Your task to perform on an android device: turn on javascript in the chrome app Image 0: 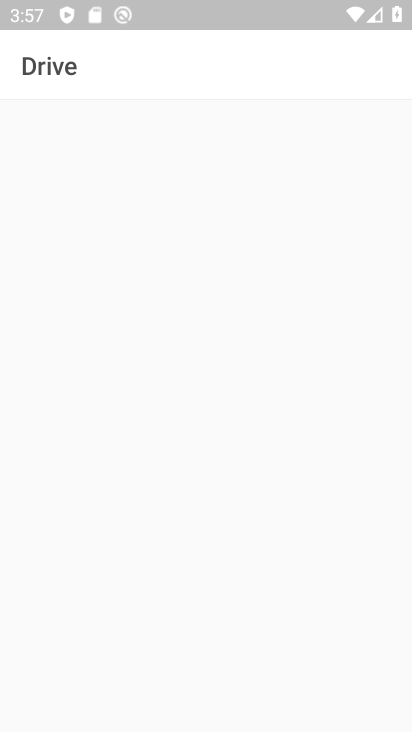
Step 0: press home button
Your task to perform on an android device: turn on javascript in the chrome app Image 1: 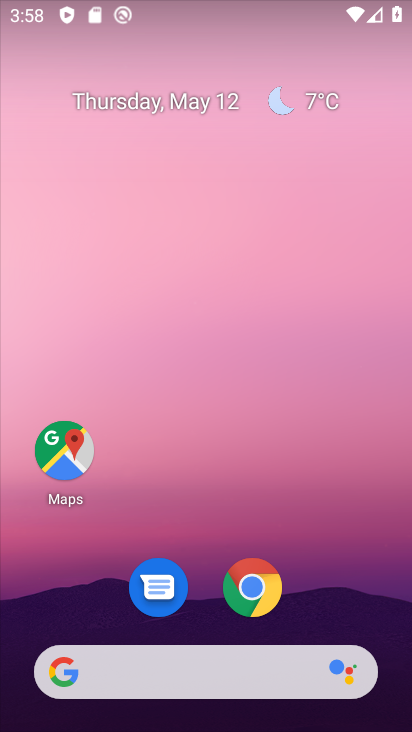
Step 1: click (271, 612)
Your task to perform on an android device: turn on javascript in the chrome app Image 2: 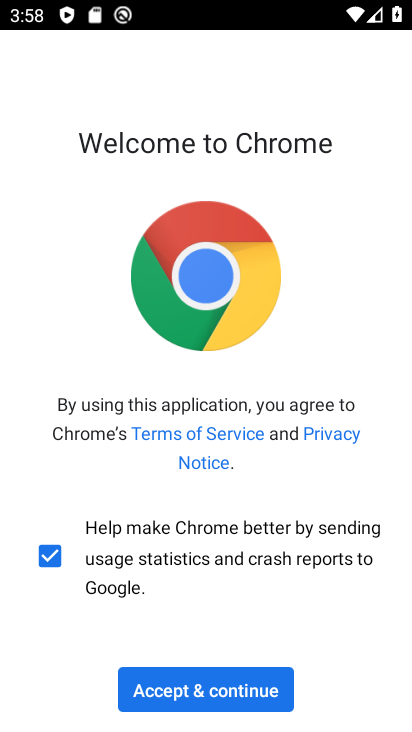
Step 2: click (173, 671)
Your task to perform on an android device: turn on javascript in the chrome app Image 3: 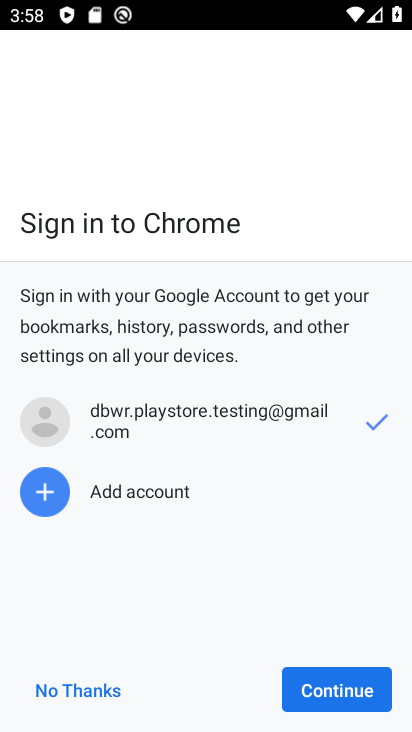
Step 3: click (322, 696)
Your task to perform on an android device: turn on javascript in the chrome app Image 4: 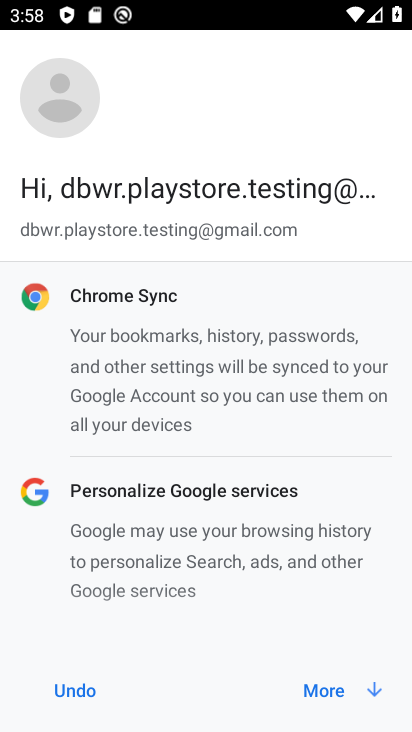
Step 4: click (345, 695)
Your task to perform on an android device: turn on javascript in the chrome app Image 5: 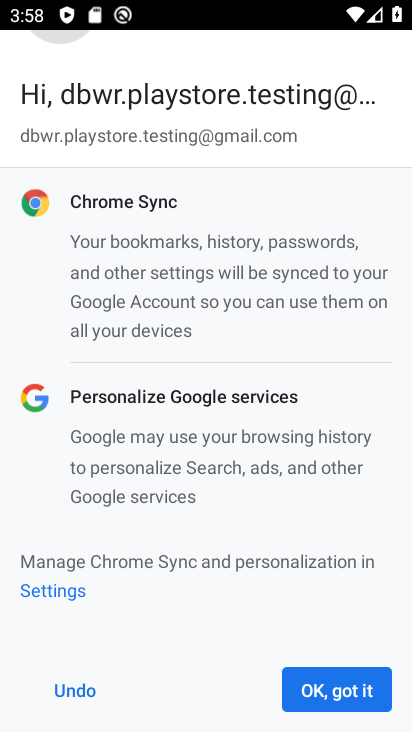
Step 5: click (345, 690)
Your task to perform on an android device: turn on javascript in the chrome app Image 6: 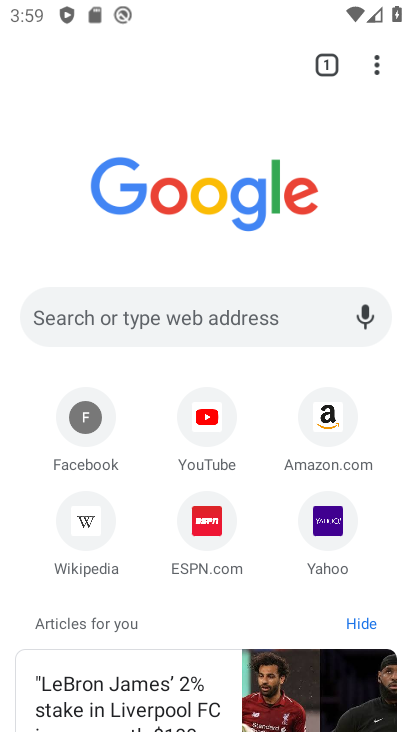
Step 6: click (376, 70)
Your task to perform on an android device: turn on javascript in the chrome app Image 7: 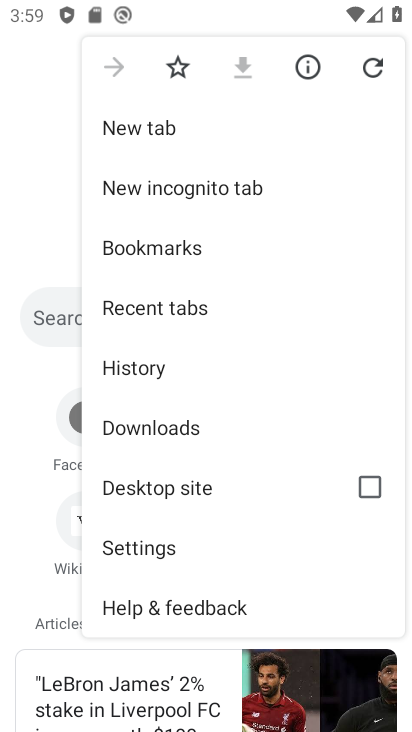
Step 7: click (139, 548)
Your task to perform on an android device: turn on javascript in the chrome app Image 8: 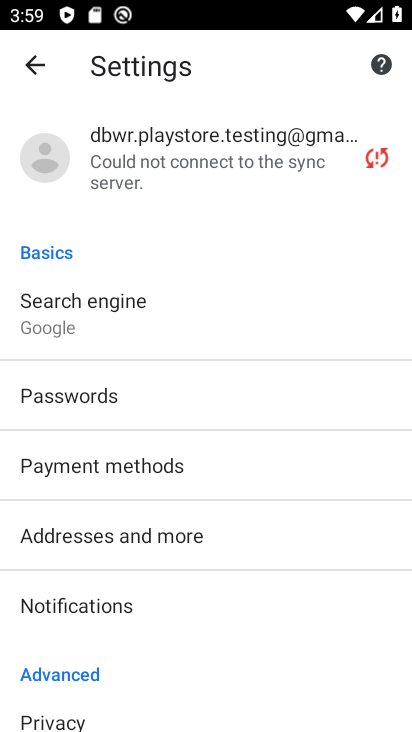
Step 8: drag from (123, 588) to (135, 396)
Your task to perform on an android device: turn on javascript in the chrome app Image 9: 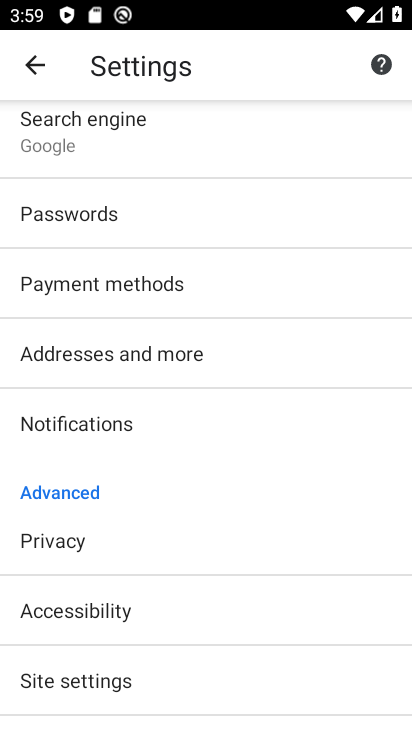
Step 9: click (90, 682)
Your task to perform on an android device: turn on javascript in the chrome app Image 10: 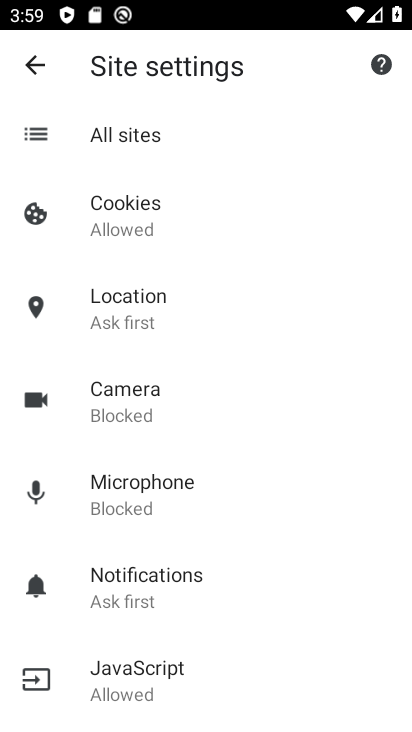
Step 10: click (148, 680)
Your task to perform on an android device: turn on javascript in the chrome app Image 11: 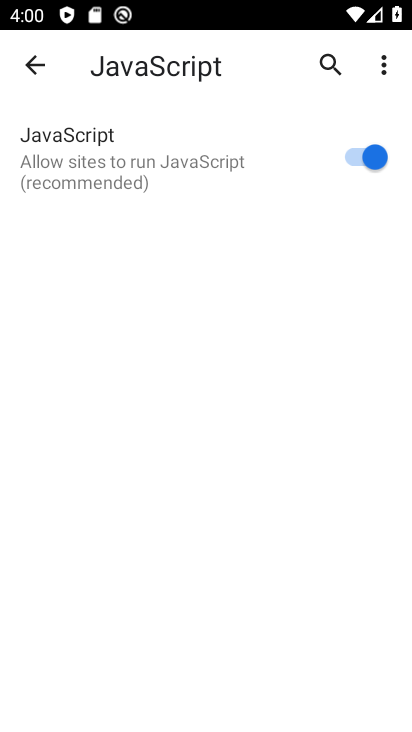
Step 11: task complete